Your task to perform on an android device: turn off data saver in the chrome app Image 0: 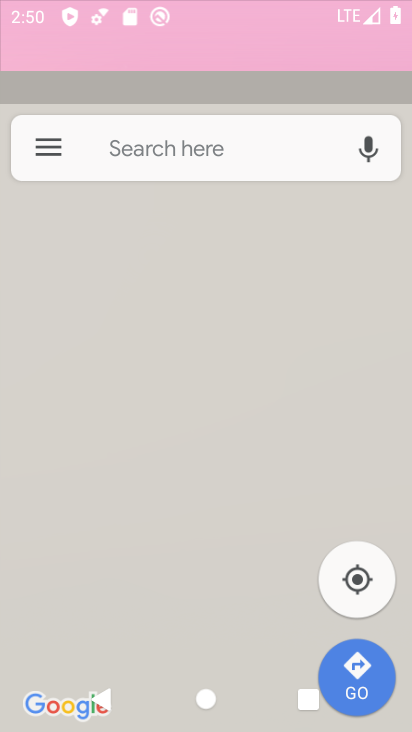
Step 0: drag from (246, 310) to (281, 61)
Your task to perform on an android device: turn off data saver in the chrome app Image 1: 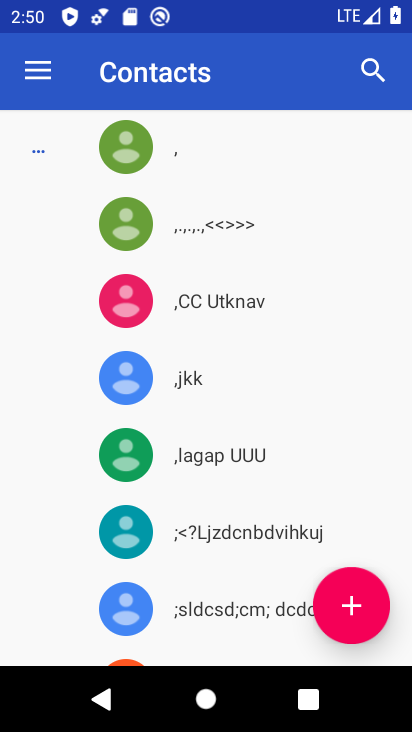
Step 1: press home button
Your task to perform on an android device: turn off data saver in the chrome app Image 2: 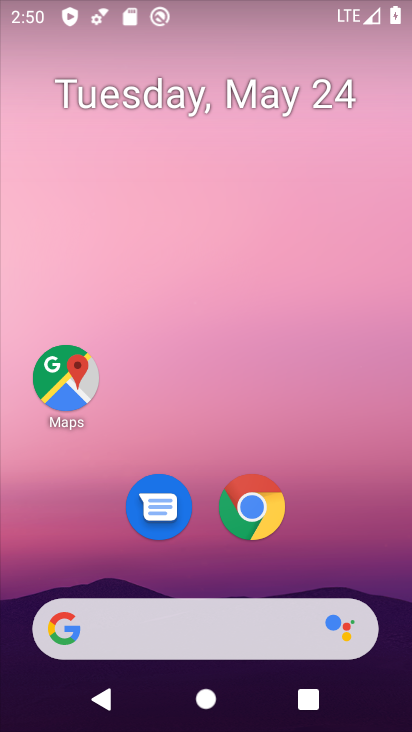
Step 2: click (248, 522)
Your task to perform on an android device: turn off data saver in the chrome app Image 3: 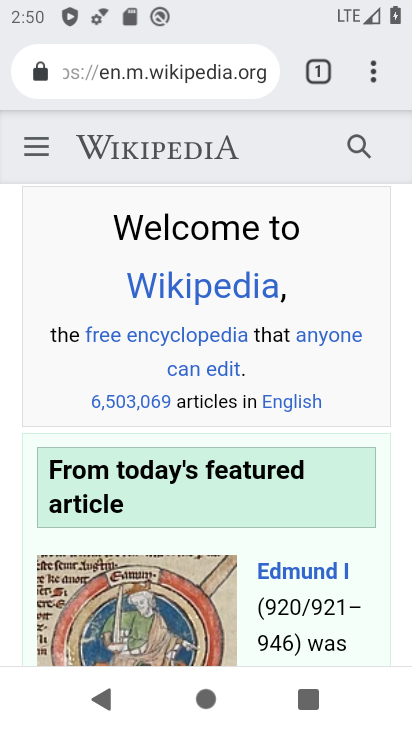
Step 3: drag from (368, 71) to (111, 504)
Your task to perform on an android device: turn off data saver in the chrome app Image 4: 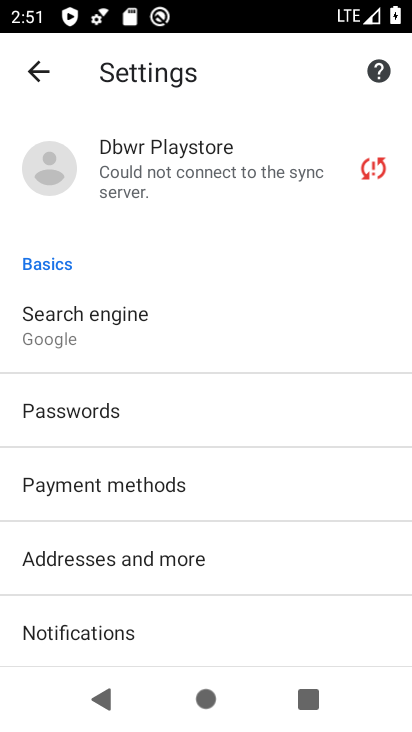
Step 4: drag from (50, 537) to (162, 129)
Your task to perform on an android device: turn off data saver in the chrome app Image 5: 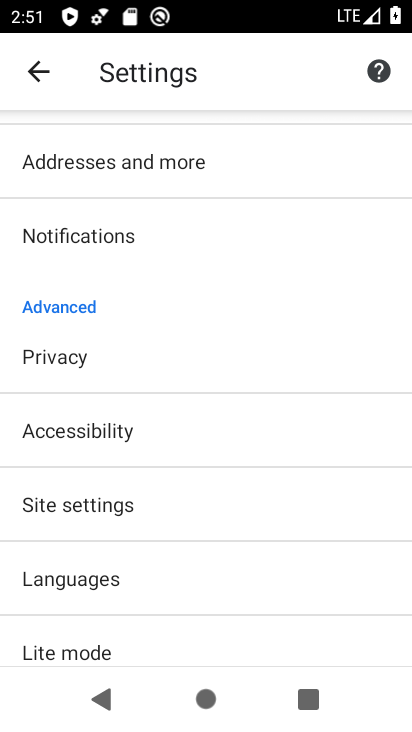
Step 5: click (109, 502)
Your task to perform on an android device: turn off data saver in the chrome app Image 6: 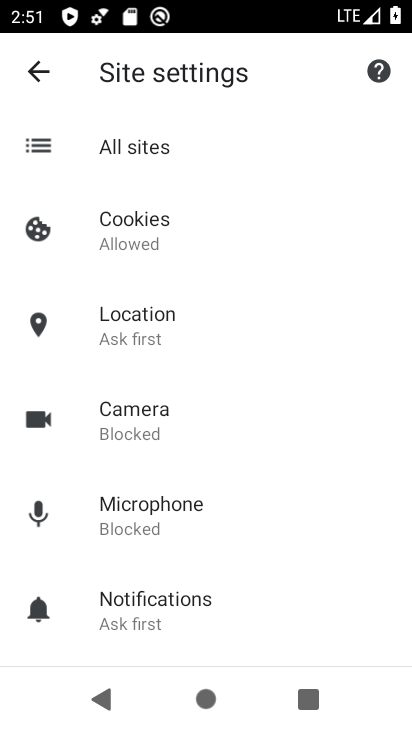
Step 6: click (25, 73)
Your task to perform on an android device: turn off data saver in the chrome app Image 7: 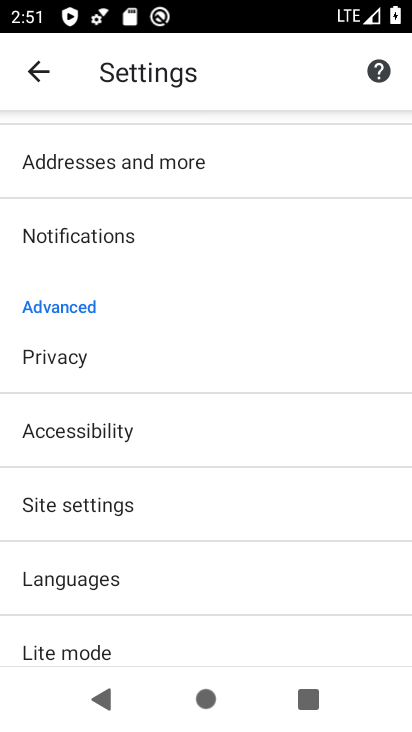
Step 7: drag from (98, 593) to (210, 187)
Your task to perform on an android device: turn off data saver in the chrome app Image 8: 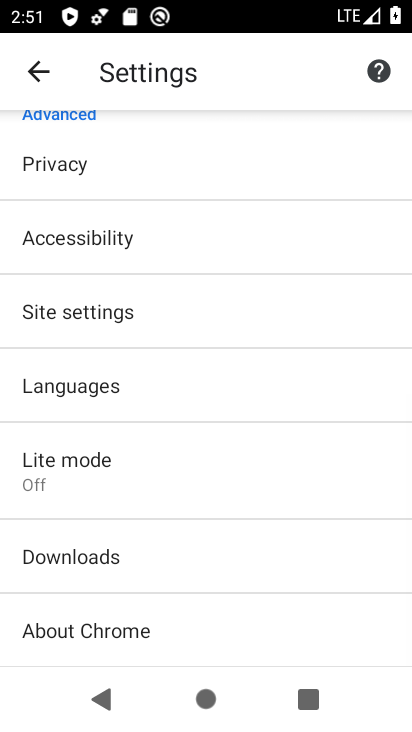
Step 8: click (118, 465)
Your task to perform on an android device: turn off data saver in the chrome app Image 9: 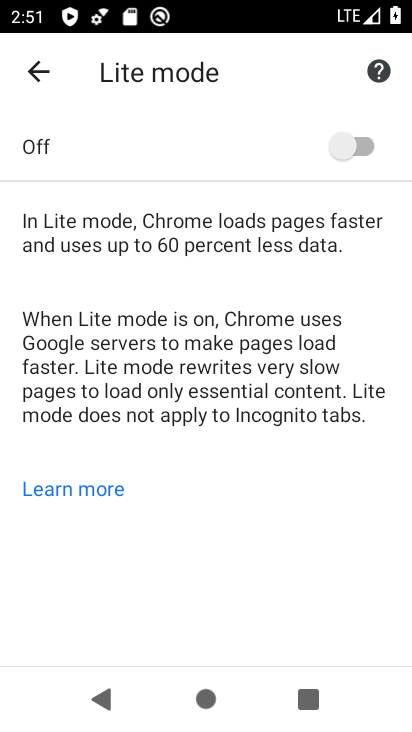
Step 9: task complete